Your task to perform on an android device: turn pop-ups on in chrome Image 0: 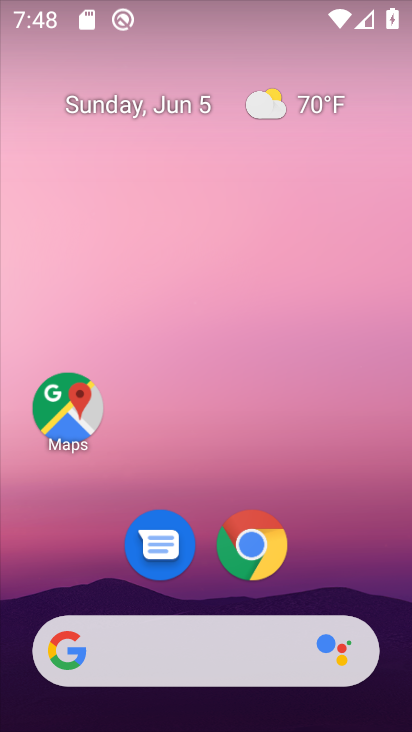
Step 0: drag from (246, 556) to (218, 237)
Your task to perform on an android device: turn pop-ups on in chrome Image 1: 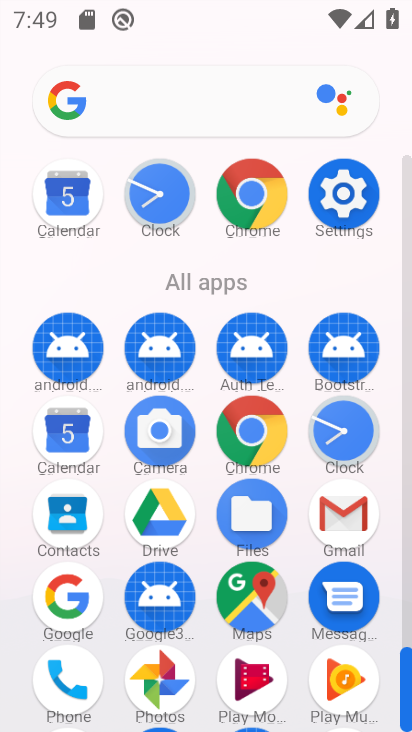
Step 1: click (257, 217)
Your task to perform on an android device: turn pop-ups on in chrome Image 2: 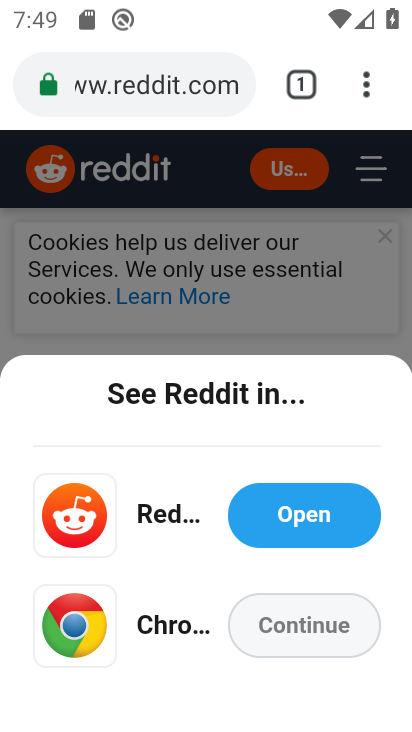
Step 2: click (370, 87)
Your task to perform on an android device: turn pop-ups on in chrome Image 3: 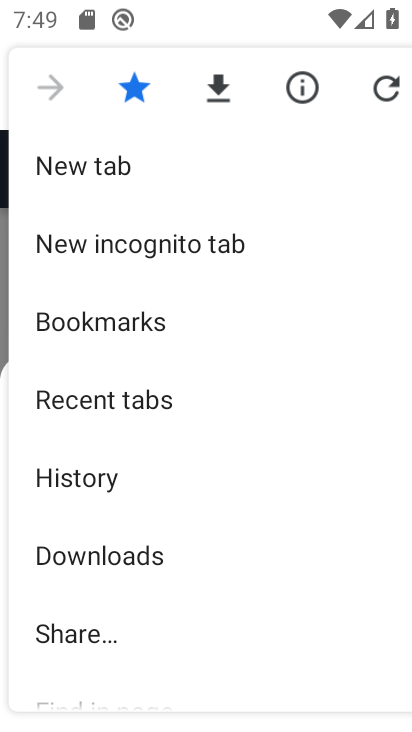
Step 3: drag from (192, 519) to (170, 312)
Your task to perform on an android device: turn pop-ups on in chrome Image 4: 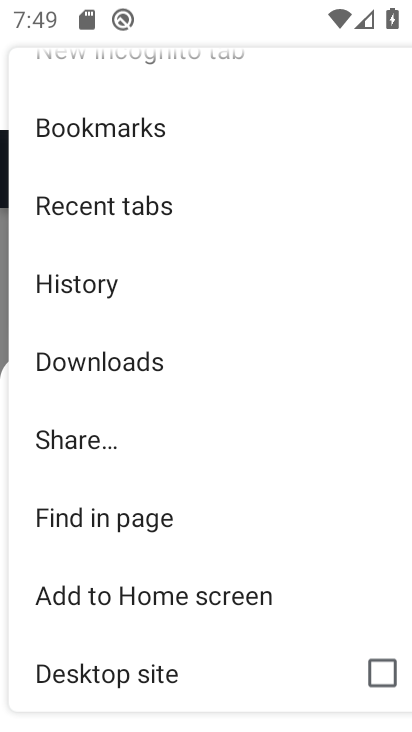
Step 4: drag from (132, 484) to (150, 186)
Your task to perform on an android device: turn pop-ups on in chrome Image 5: 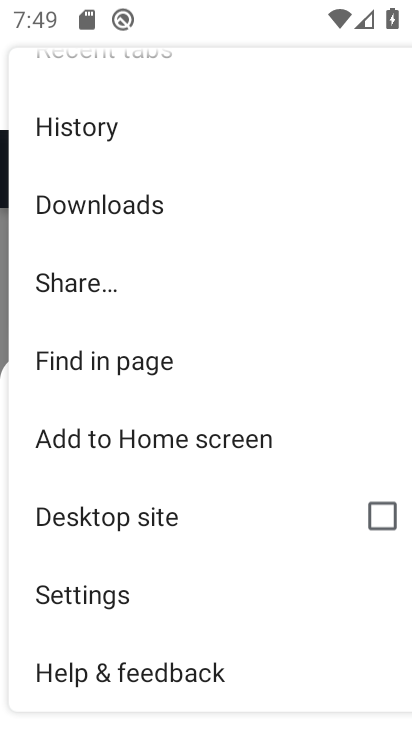
Step 5: click (118, 586)
Your task to perform on an android device: turn pop-ups on in chrome Image 6: 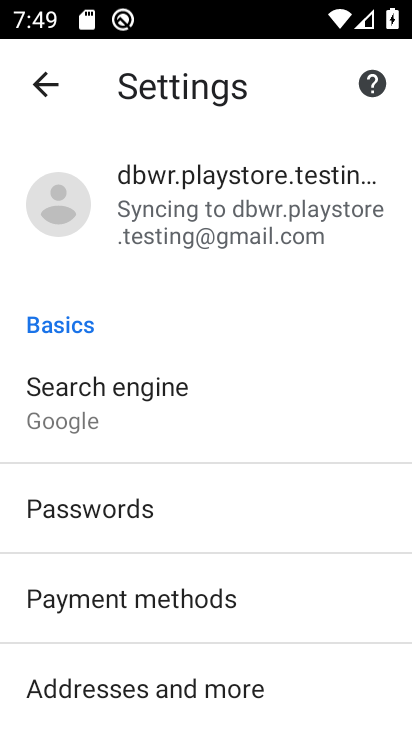
Step 6: drag from (143, 505) to (205, 29)
Your task to perform on an android device: turn pop-ups on in chrome Image 7: 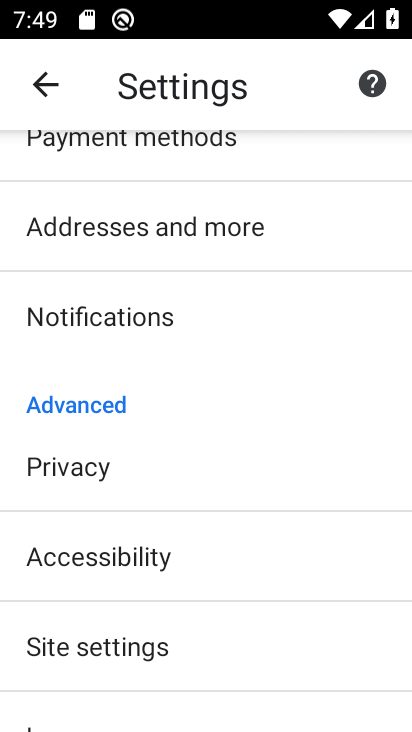
Step 7: drag from (132, 555) to (180, 202)
Your task to perform on an android device: turn pop-ups on in chrome Image 8: 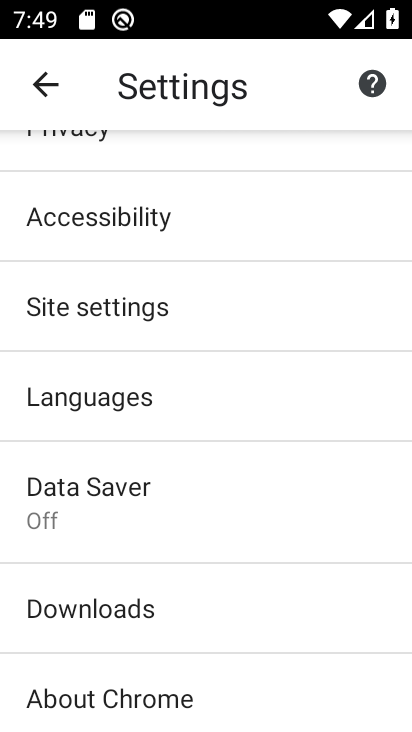
Step 8: click (180, 330)
Your task to perform on an android device: turn pop-ups on in chrome Image 9: 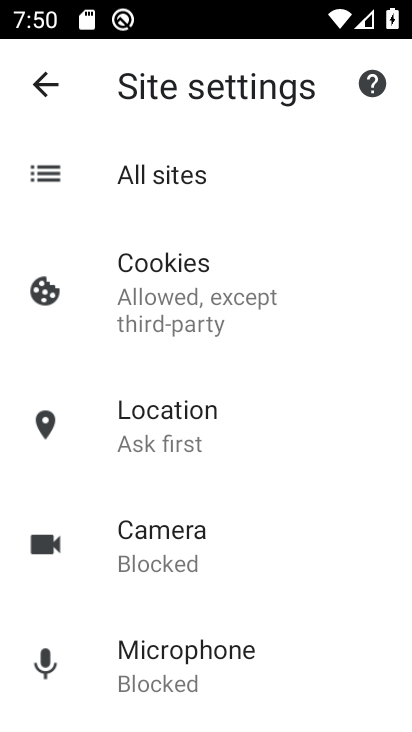
Step 9: drag from (259, 617) to (291, 419)
Your task to perform on an android device: turn pop-ups on in chrome Image 10: 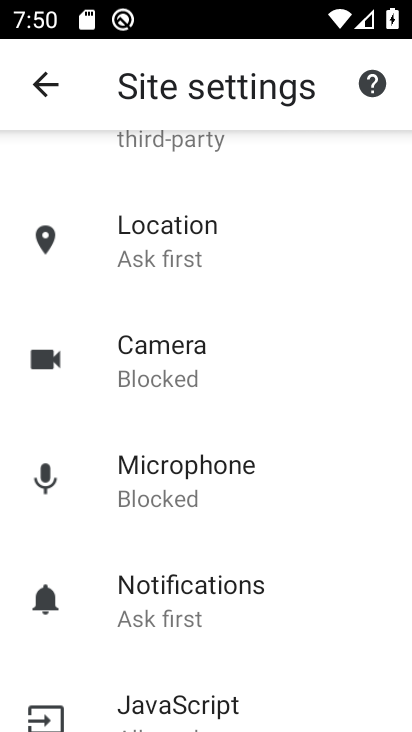
Step 10: drag from (262, 587) to (271, 161)
Your task to perform on an android device: turn pop-ups on in chrome Image 11: 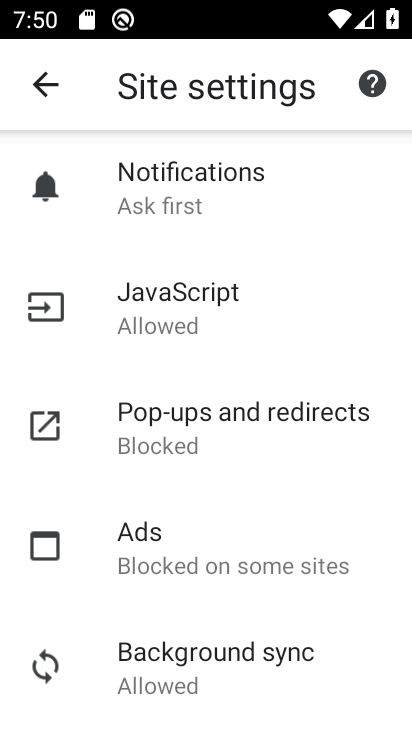
Step 11: click (229, 425)
Your task to perform on an android device: turn pop-ups on in chrome Image 12: 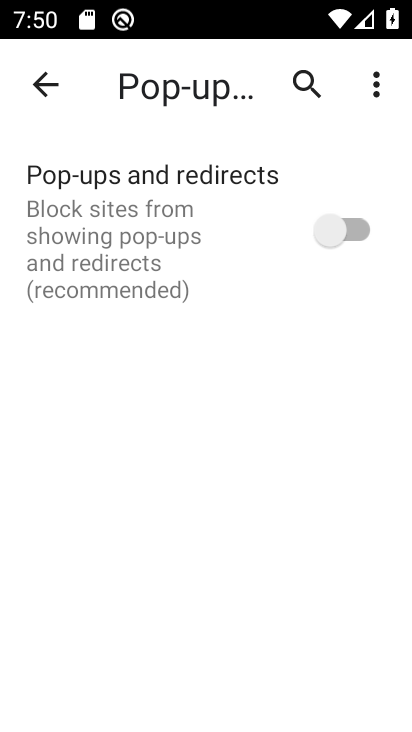
Step 12: click (350, 238)
Your task to perform on an android device: turn pop-ups on in chrome Image 13: 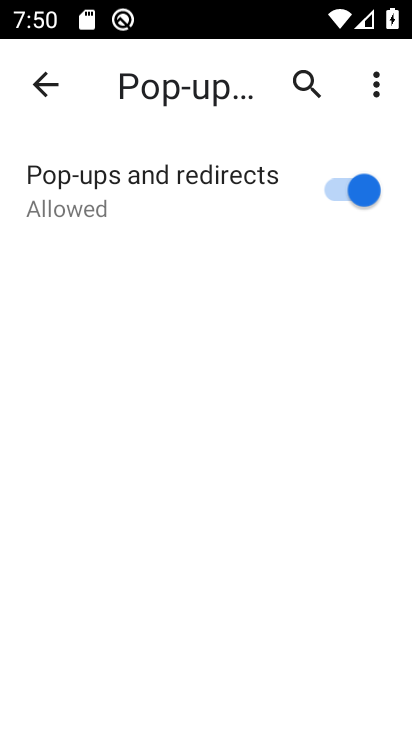
Step 13: task complete